Your task to perform on an android device: turn notification dots on Image 0: 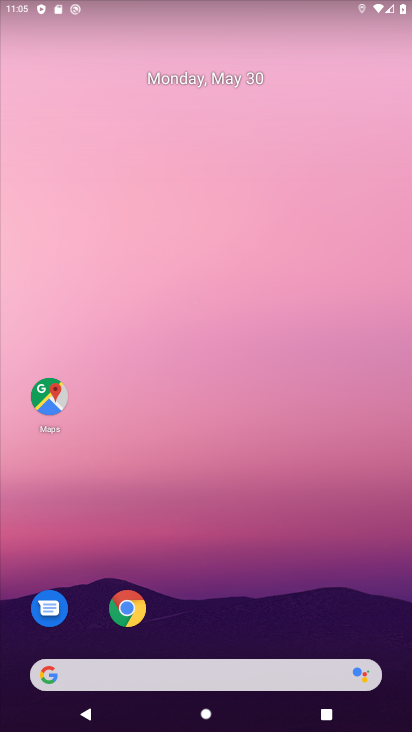
Step 0: drag from (328, 647) to (295, 2)
Your task to perform on an android device: turn notification dots on Image 1: 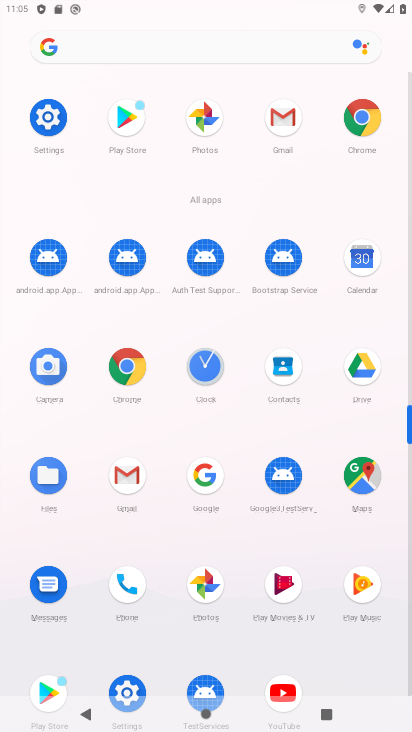
Step 1: click (50, 123)
Your task to perform on an android device: turn notification dots on Image 2: 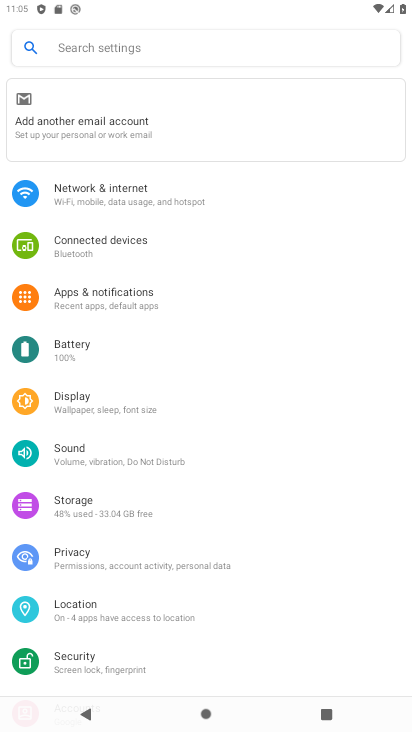
Step 2: click (101, 302)
Your task to perform on an android device: turn notification dots on Image 3: 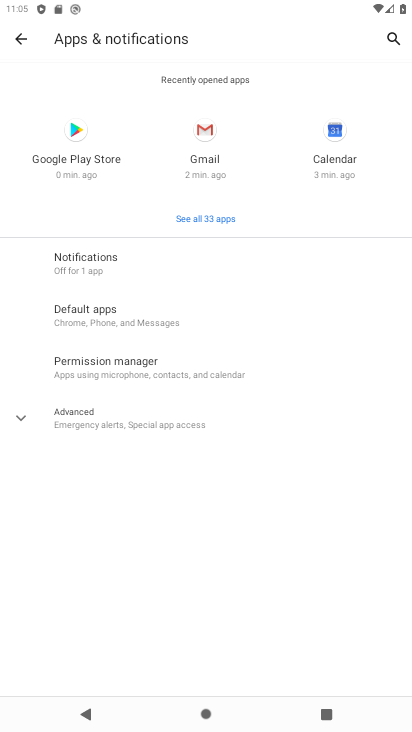
Step 3: click (90, 271)
Your task to perform on an android device: turn notification dots on Image 4: 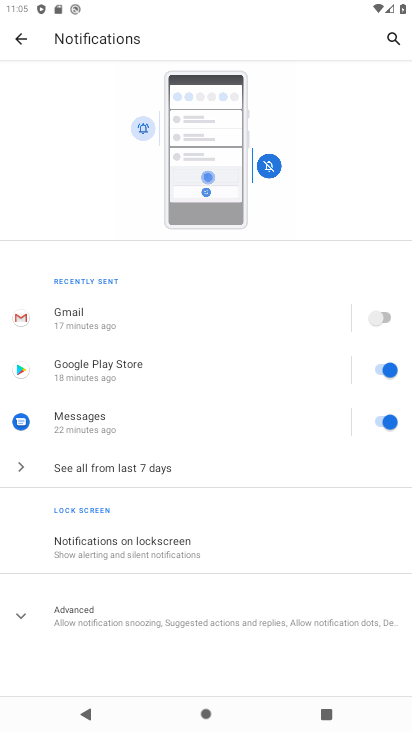
Step 4: click (14, 622)
Your task to perform on an android device: turn notification dots on Image 5: 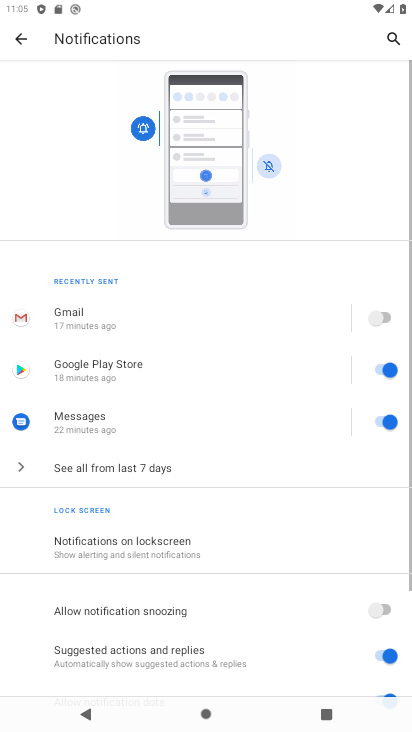
Step 5: task complete